Your task to perform on an android device: open app "Move to iOS" (install if not already installed) and go to login screen Image 0: 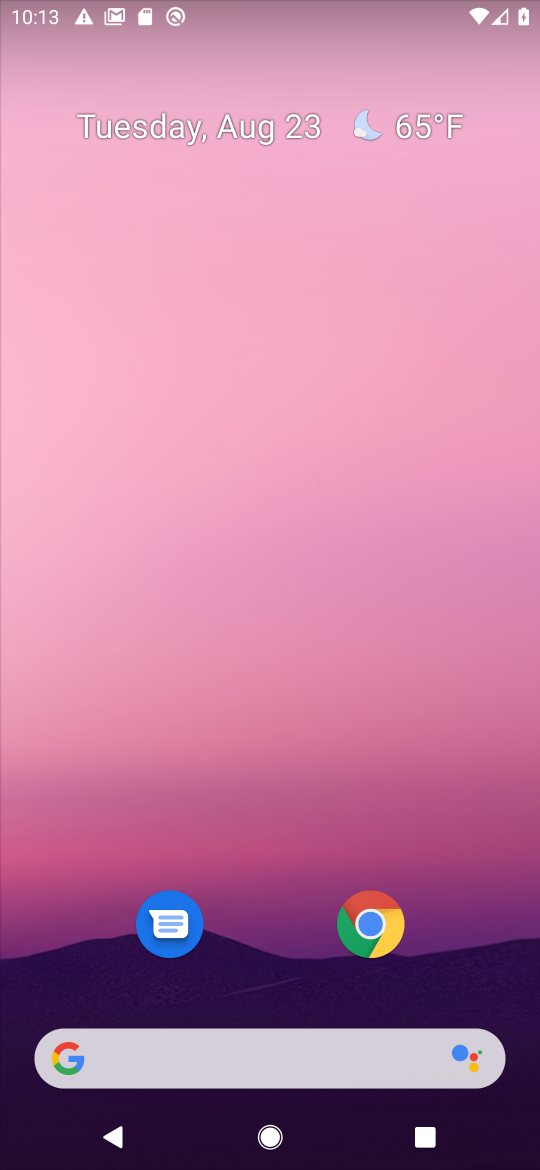
Step 0: drag from (305, 1060) to (205, 0)
Your task to perform on an android device: open app "Move to iOS" (install if not already installed) and go to login screen Image 1: 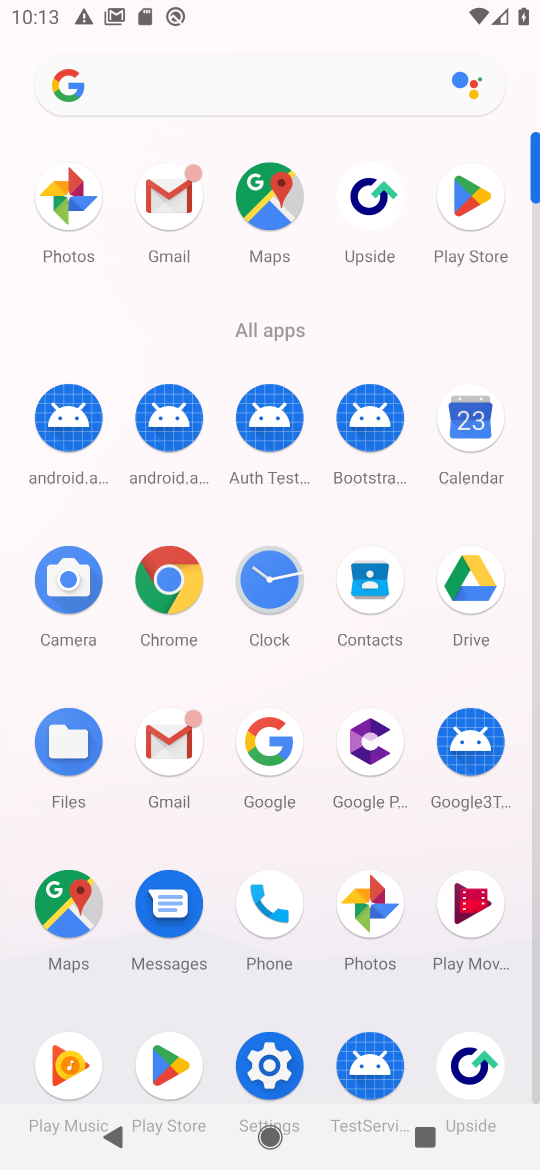
Step 1: click (487, 191)
Your task to perform on an android device: open app "Move to iOS" (install if not already installed) and go to login screen Image 2: 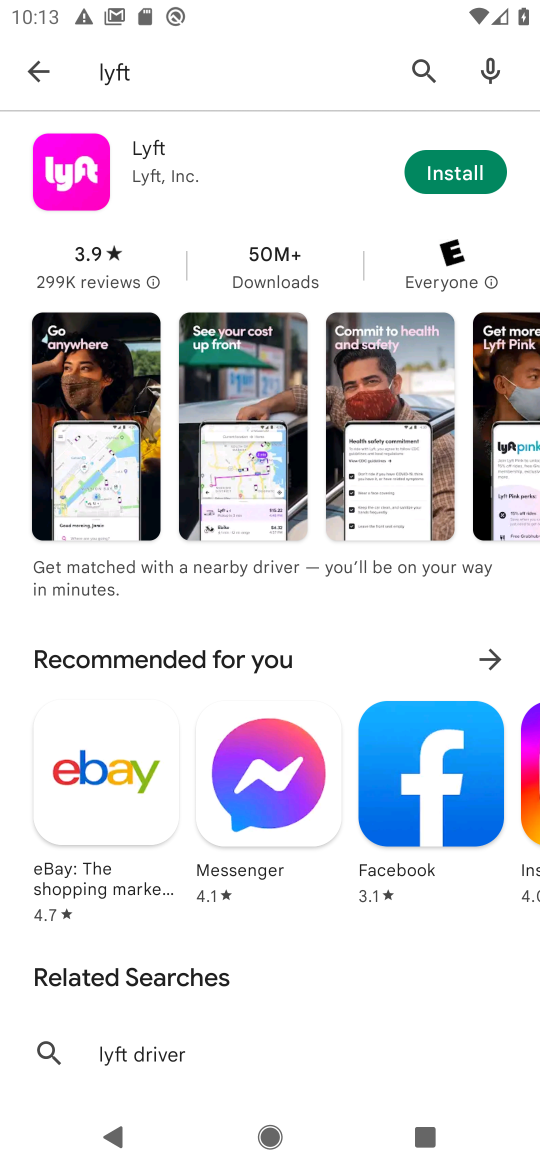
Step 2: click (419, 63)
Your task to perform on an android device: open app "Move to iOS" (install if not already installed) and go to login screen Image 3: 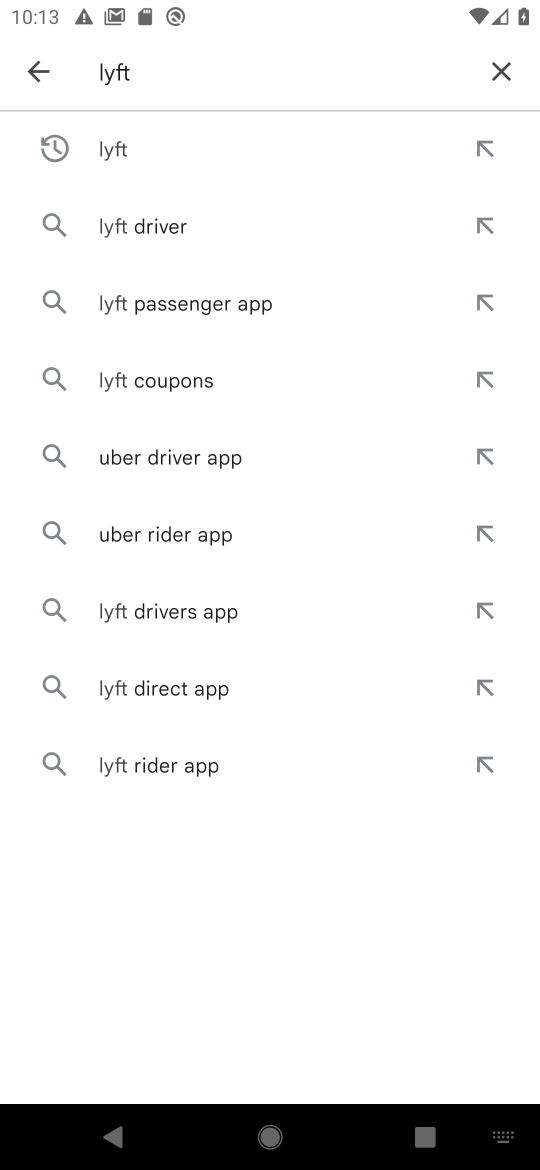
Step 3: click (497, 72)
Your task to perform on an android device: open app "Move to iOS" (install if not already installed) and go to login screen Image 4: 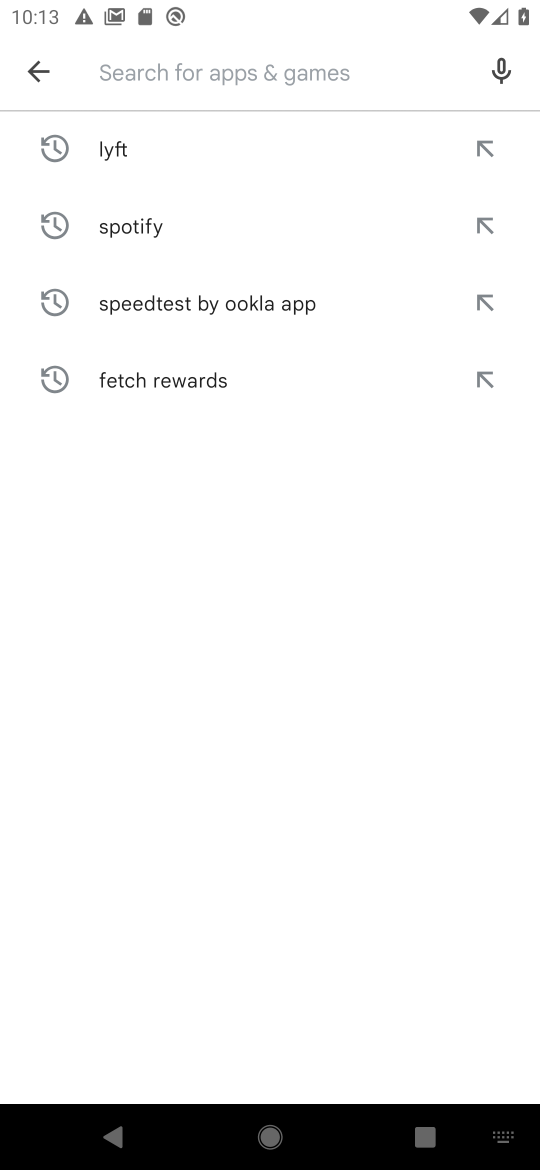
Step 4: type "move to ios"
Your task to perform on an android device: open app "Move to iOS" (install if not already installed) and go to login screen Image 5: 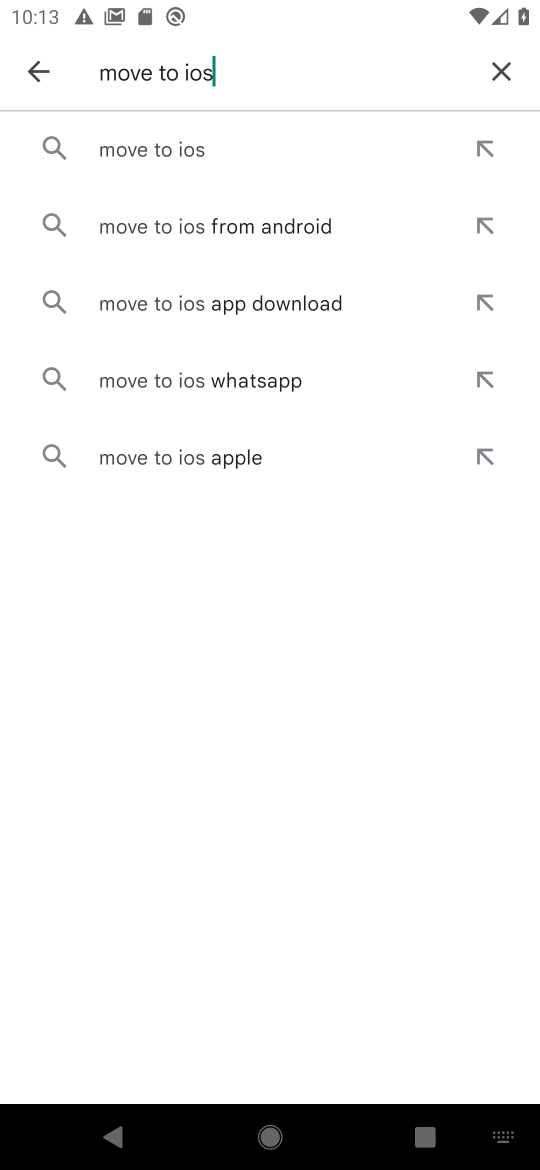
Step 5: click (206, 147)
Your task to perform on an android device: open app "Move to iOS" (install if not already installed) and go to login screen Image 6: 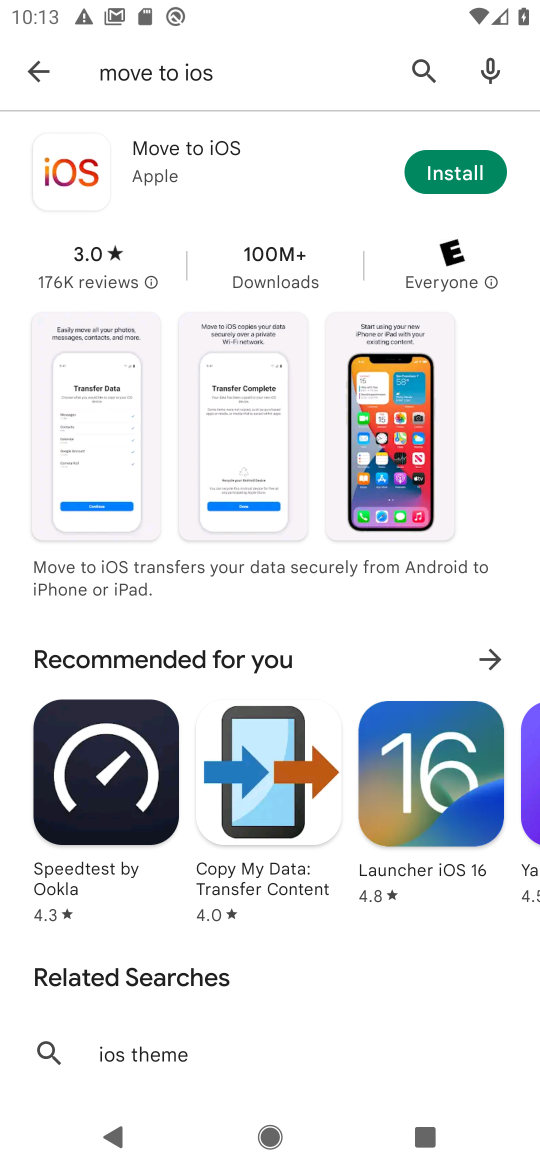
Step 6: click (438, 173)
Your task to perform on an android device: open app "Move to iOS" (install if not already installed) and go to login screen Image 7: 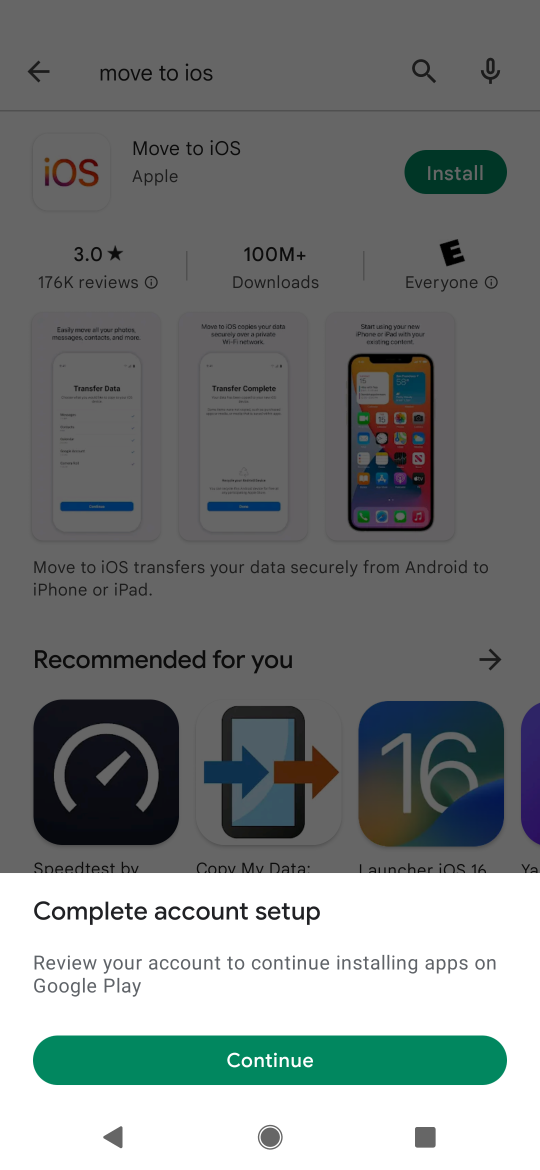
Step 7: click (419, 1041)
Your task to perform on an android device: open app "Move to iOS" (install if not already installed) and go to login screen Image 8: 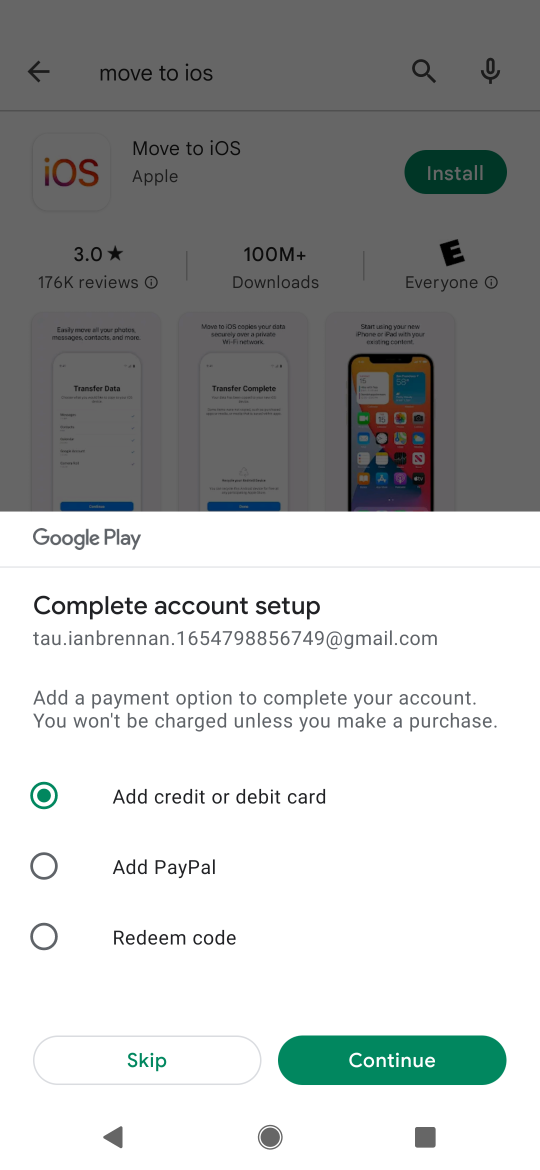
Step 8: click (106, 1063)
Your task to perform on an android device: open app "Move to iOS" (install if not already installed) and go to login screen Image 9: 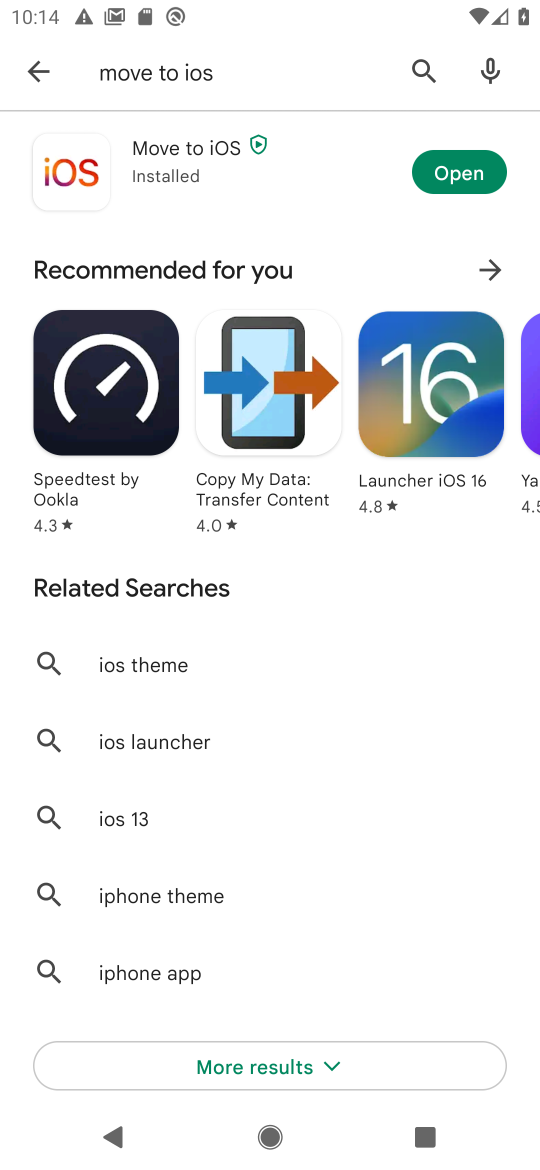
Step 9: click (446, 180)
Your task to perform on an android device: open app "Move to iOS" (install if not already installed) and go to login screen Image 10: 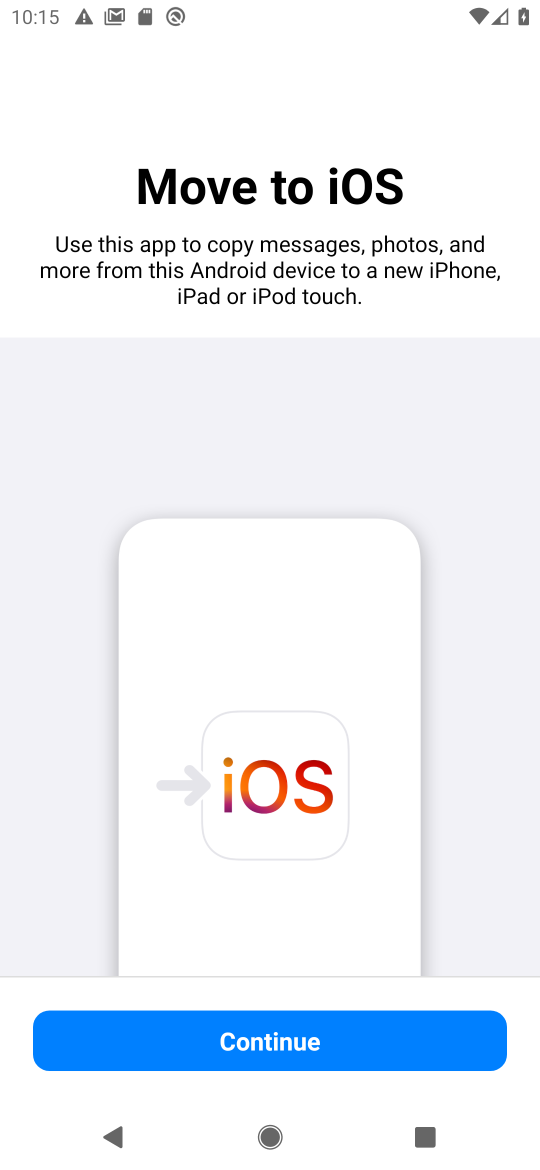
Step 10: click (378, 1022)
Your task to perform on an android device: open app "Move to iOS" (install if not already installed) and go to login screen Image 11: 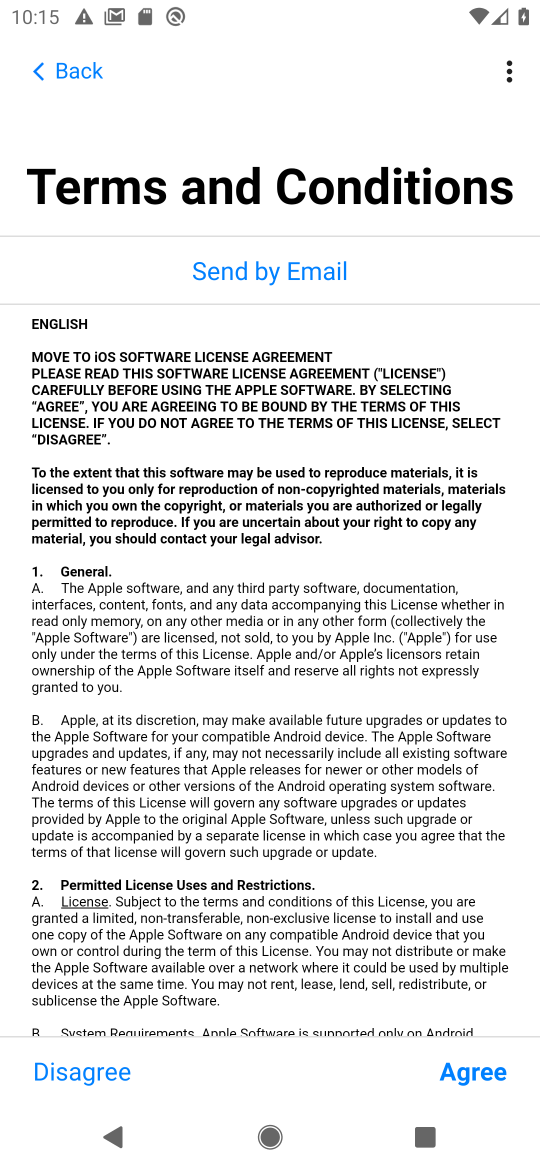
Step 11: click (485, 1075)
Your task to perform on an android device: open app "Move to iOS" (install if not already installed) and go to login screen Image 12: 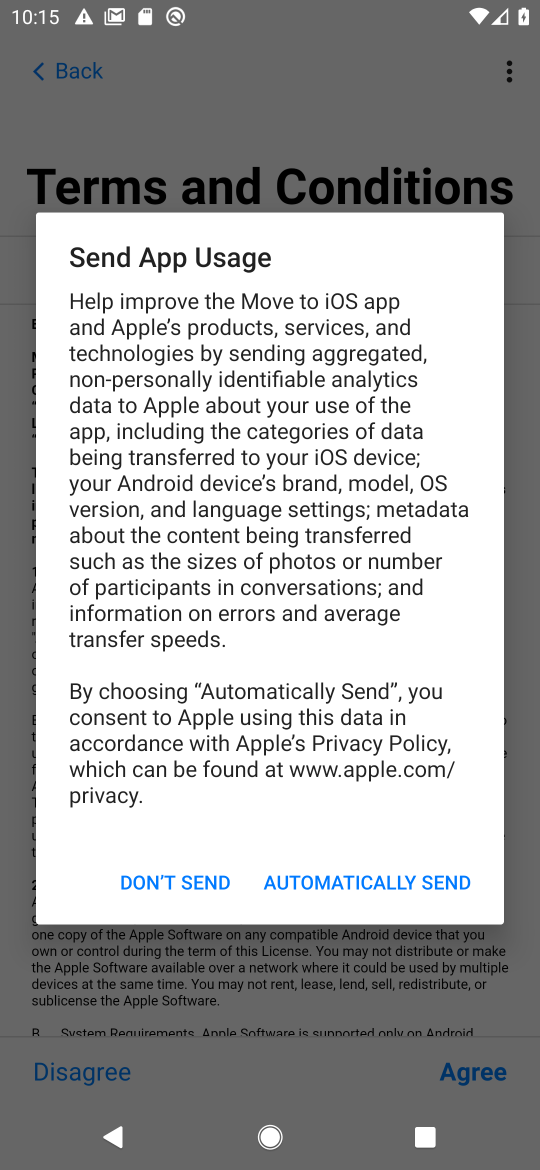
Step 12: click (288, 890)
Your task to perform on an android device: open app "Move to iOS" (install if not already installed) and go to login screen Image 13: 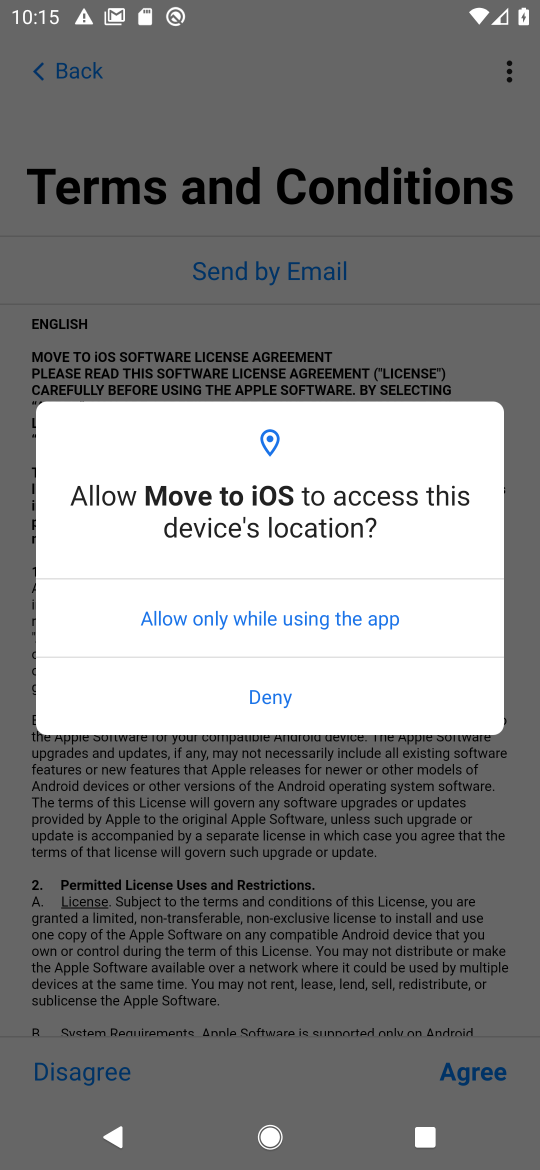
Step 13: click (283, 620)
Your task to perform on an android device: open app "Move to iOS" (install if not already installed) and go to login screen Image 14: 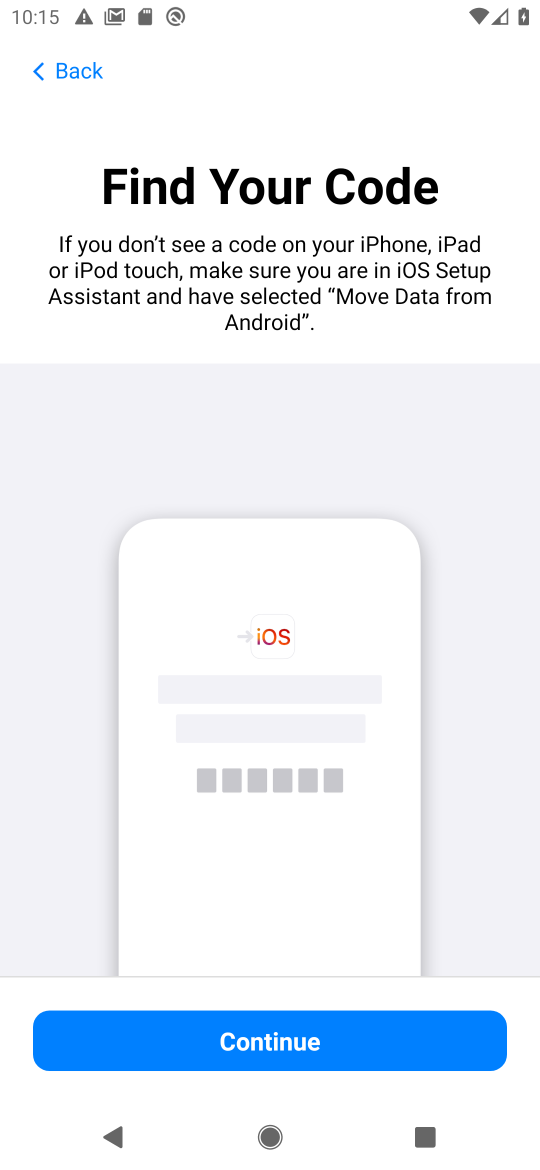
Step 14: task complete